Your task to perform on an android device: Add "acer predator" to the cart on amazon.com Image 0: 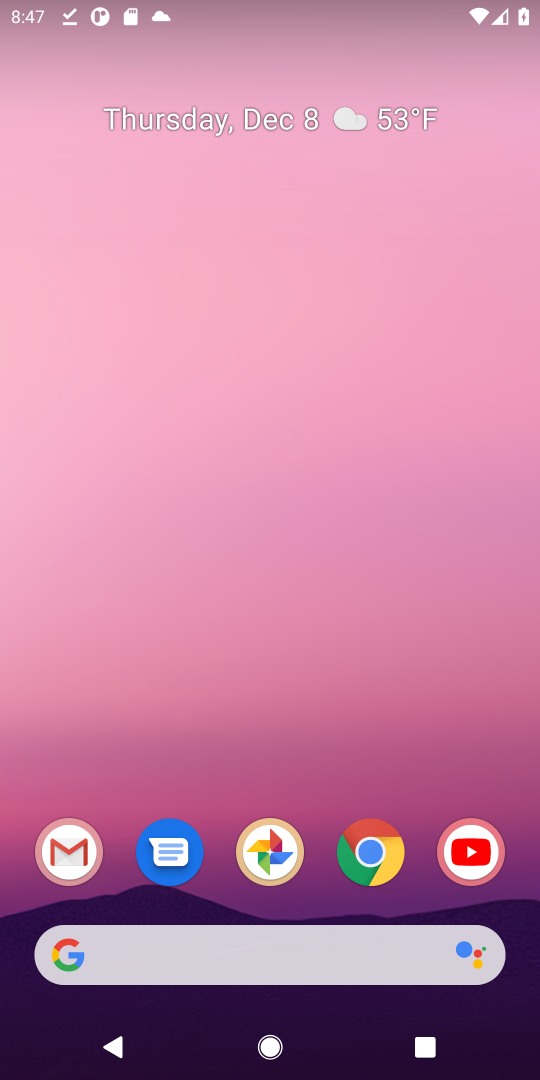
Step 0: click (277, 972)
Your task to perform on an android device: Add "acer predator" to the cart on amazon.com Image 1: 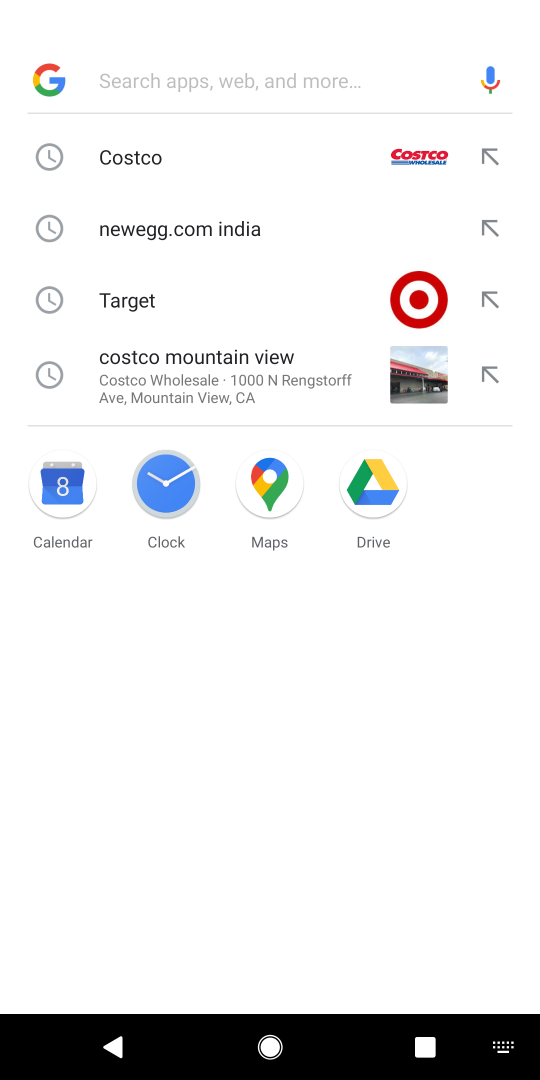
Step 1: type "amazon"
Your task to perform on an android device: Add "acer predator" to the cart on amazon.com Image 2: 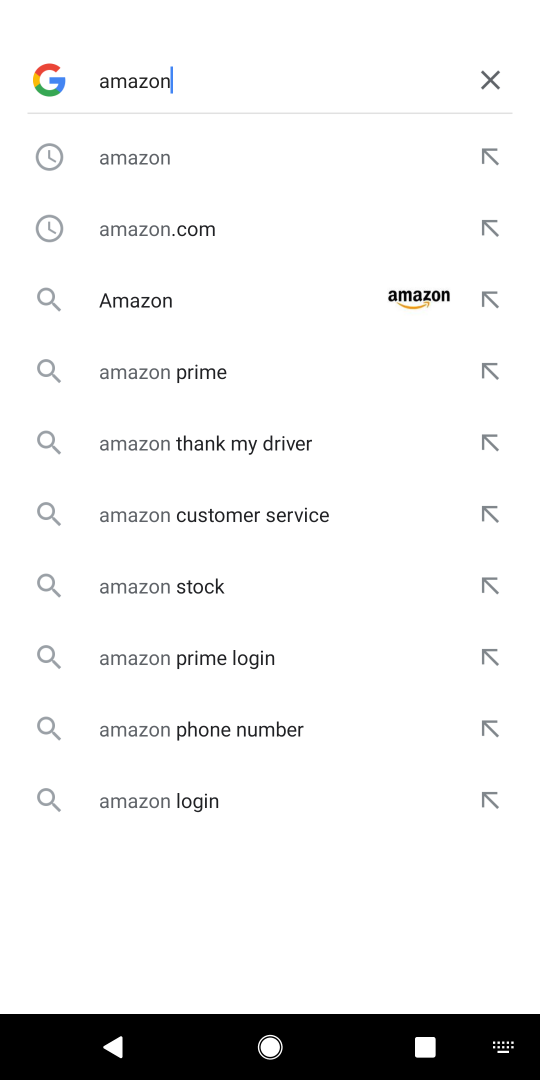
Step 2: click (209, 295)
Your task to perform on an android device: Add "acer predator" to the cart on amazon.com Image 3: 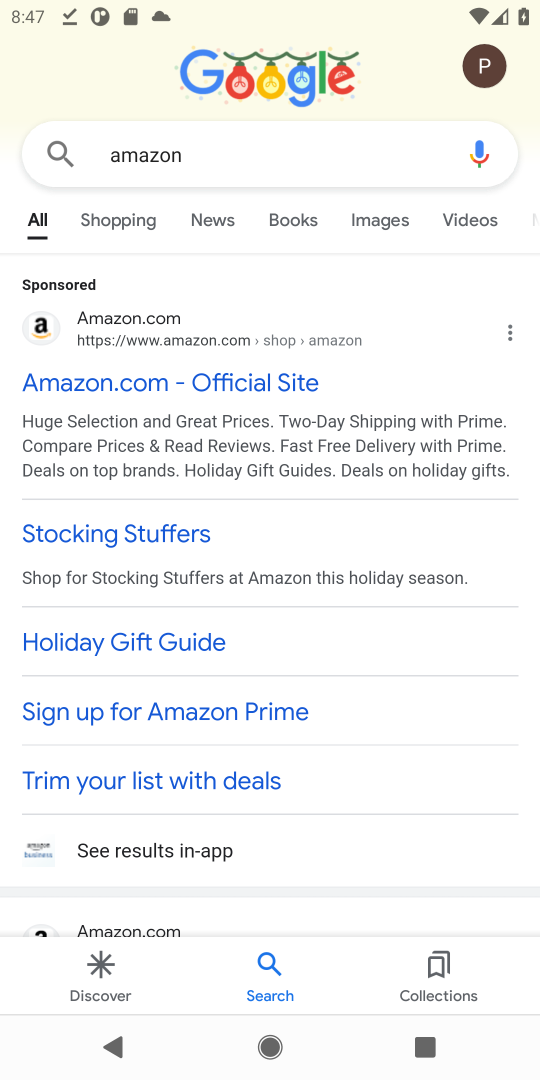
Step 3: click (118, 389)
Your task to perform on an android device: Add "acer predator" to the cart on amazon.com Image 4: 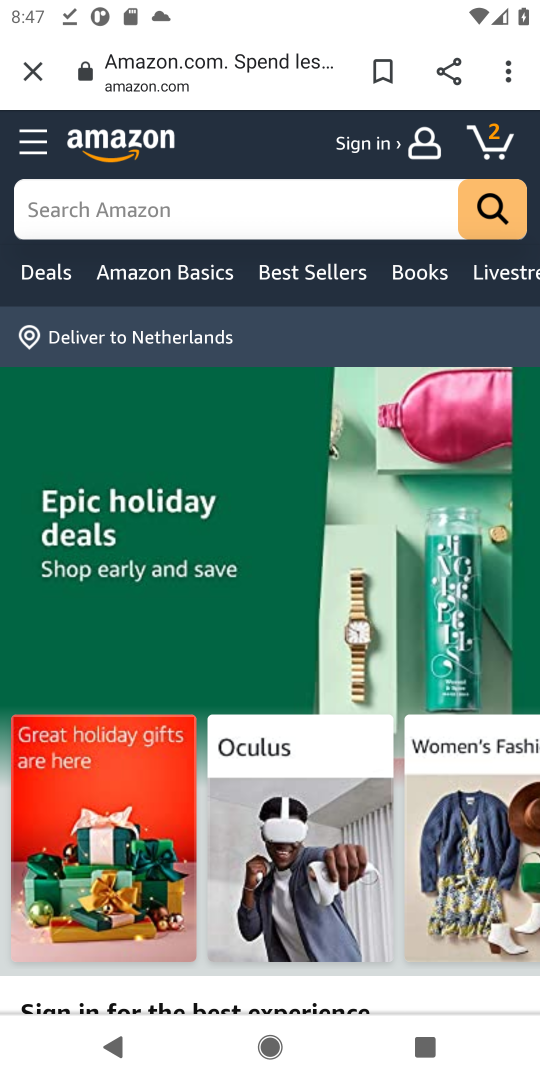
Step 4: click (190, 210)
Your task to perform on an android device: Add "acer predator" to the cart on amazon.com Image 5: 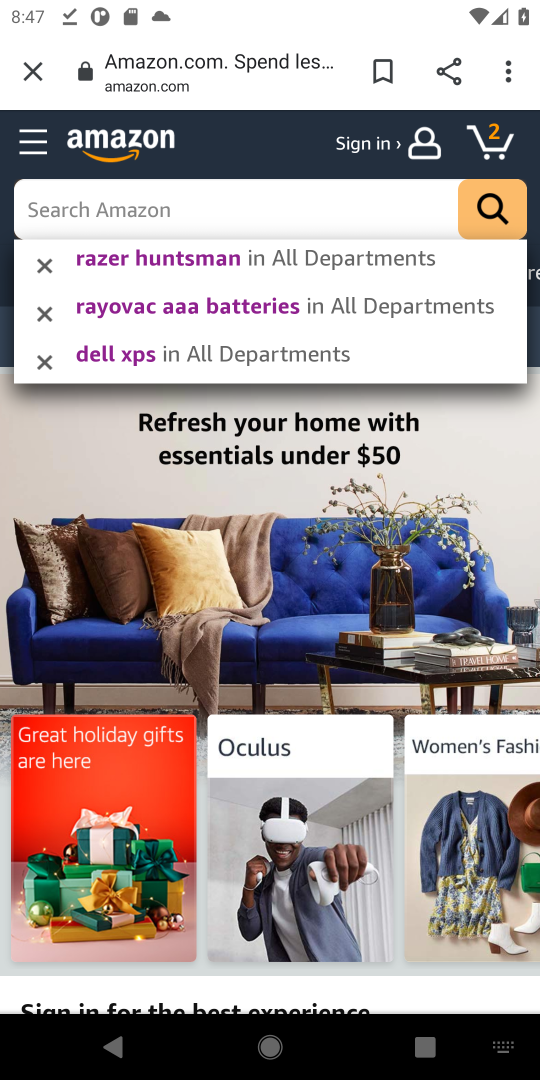
Step 5: type "acer predator"
Your task to perform on an android device: Add "acer predator" to the cart on amazon.com Image 6: 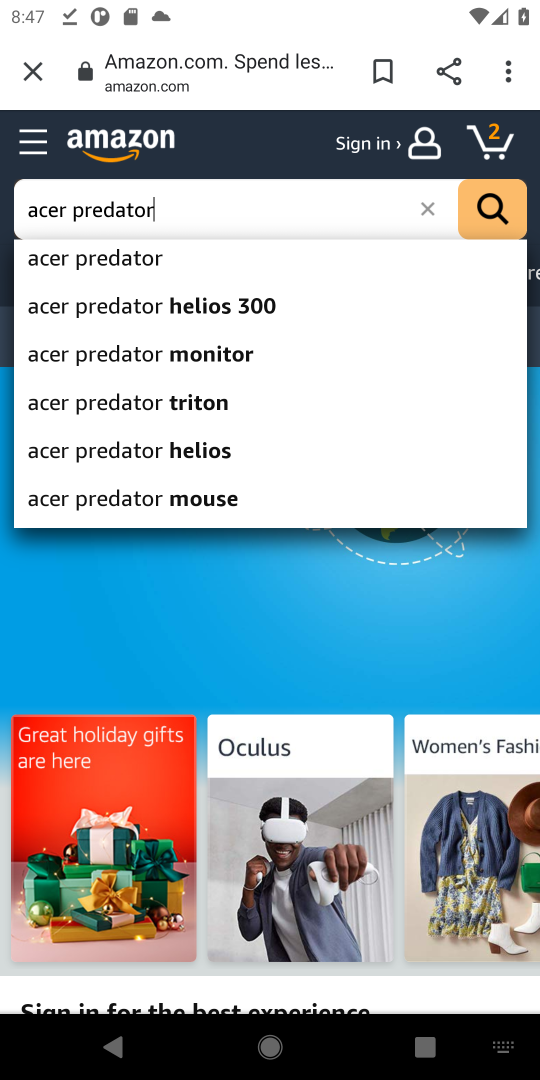
Step 6: click (168, 272)
Your task to perform on an android device: Add "acer predator" to the cart on amazon.com Image 7: 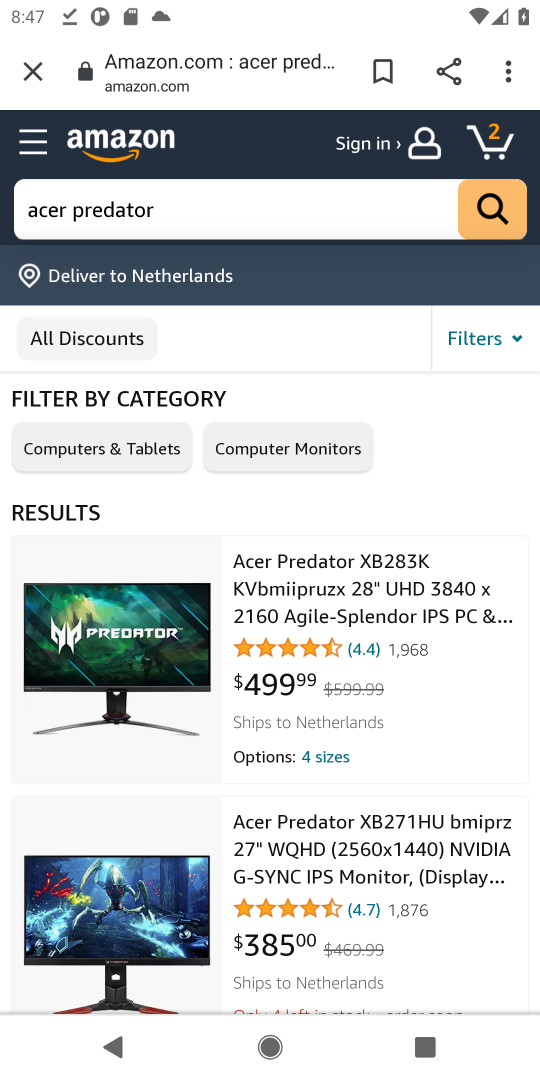
Step 7: click (299, 596)
Your task to perform on an android device: Add "acer predator" to the cart on amazon.com Image 8: 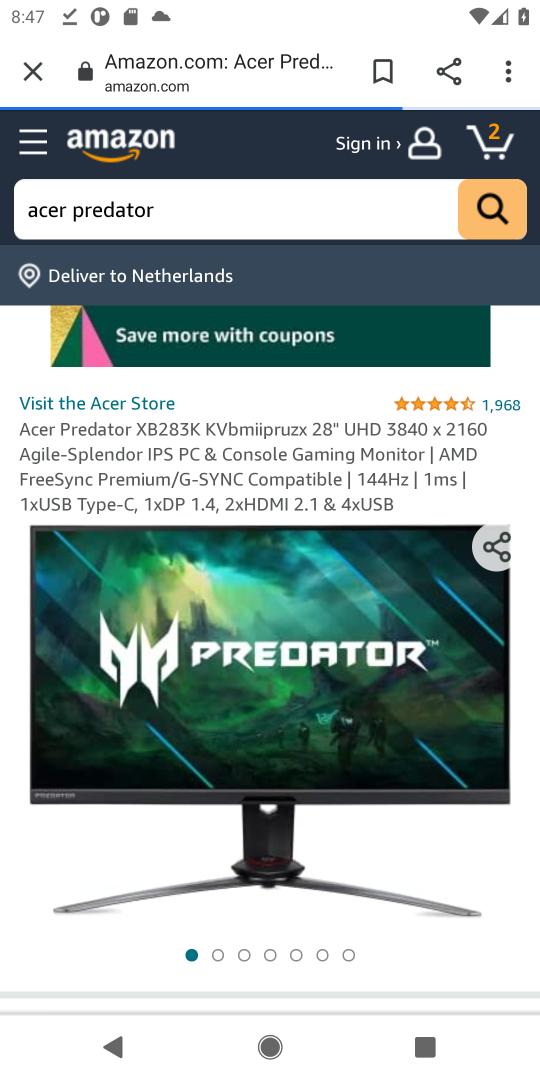
Step 8: drag from (391, 798) to (426, 184)
Your task to perform on an android device: Add "acer predator" to the cart on amazon.com Image 9: 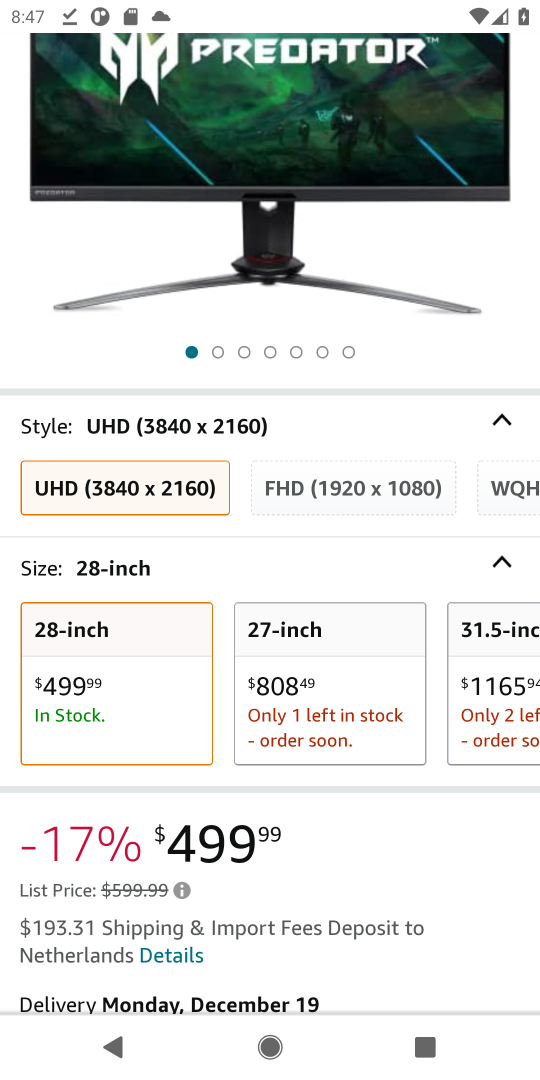
Step 9: drag from (343, 951) to (419, 295)
Your task to perform on an android device: Add "acer predator" to the cart on amazon.com Image 10: 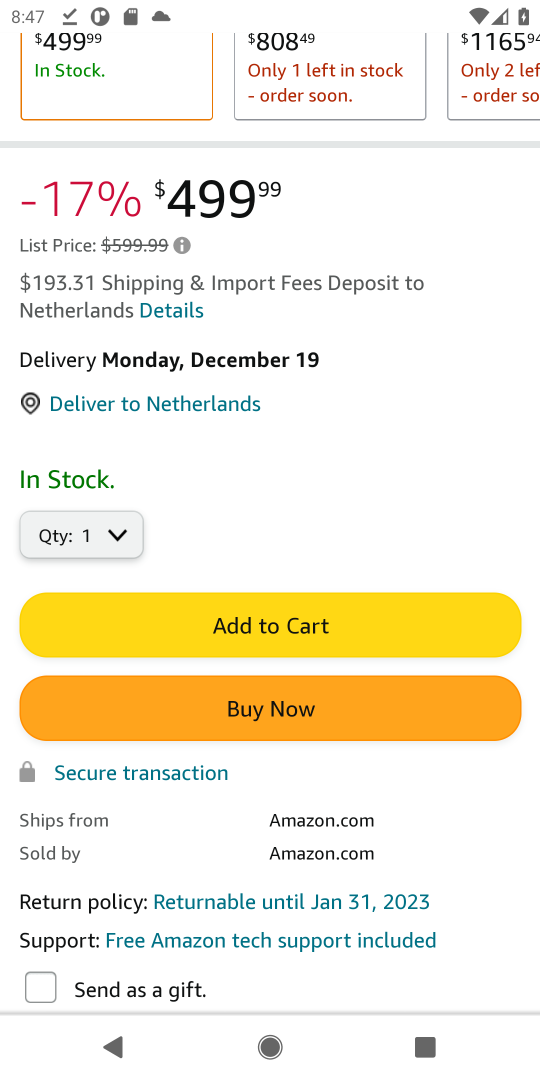
Step 10: click (347, 624)
Your task to perform on an android device: Add "acer predator" to the cart on amazon.com Image 11: 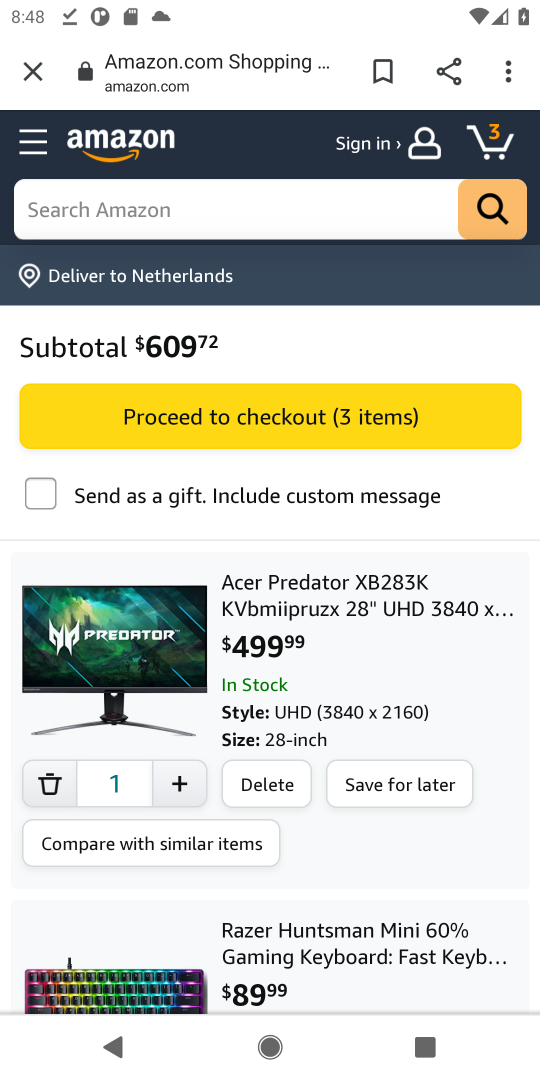
Step 11: task complete